Your task to perform on an android device: Open settings Image 0: 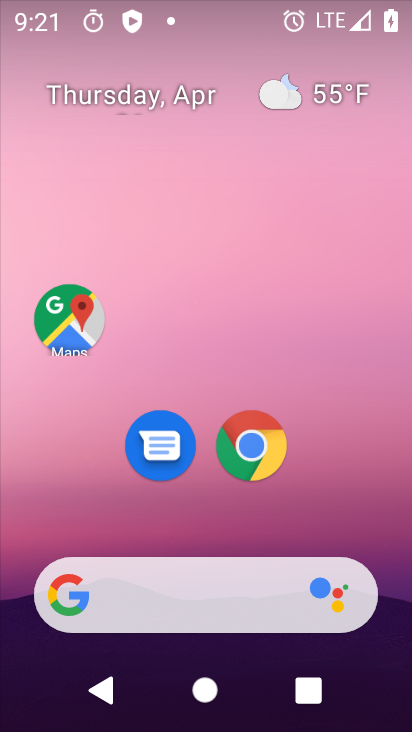
Step 0: drag from (341, 534) to (365, 13)
Your task to perform on an android device: Open settings Image 1: 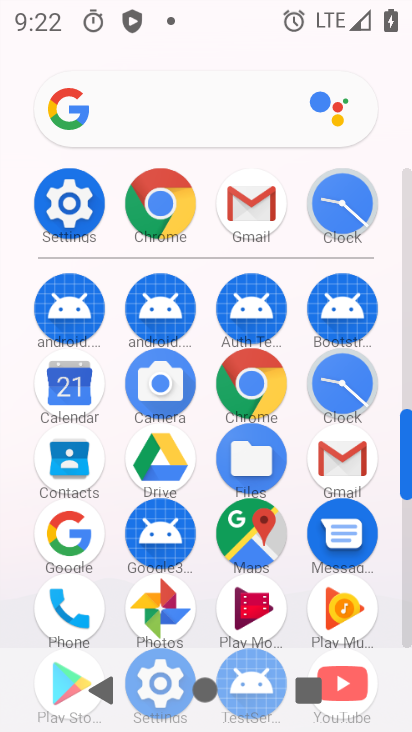
Step 1: click (63, 212)
Your task to perform on an android device: Open settings Image 2: 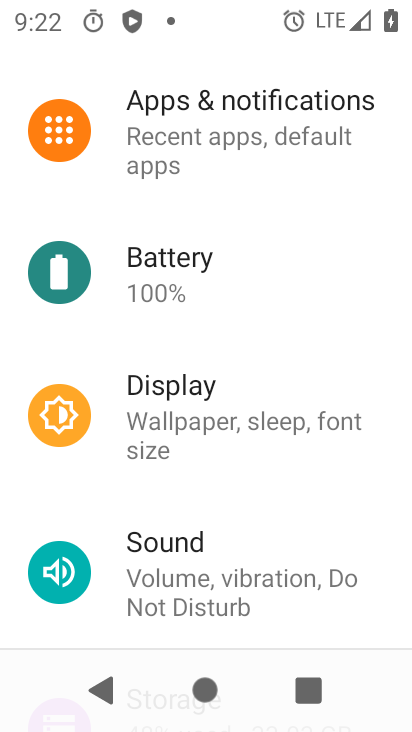
Step 2: task complete